Your task to perform on an android device: turn on location history Image 0: 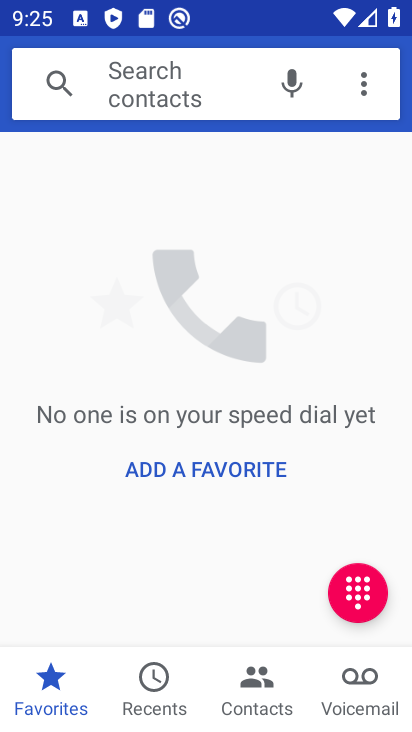
Step 0: press home button
Your task to perform on an android device: turn on location history Image 1: 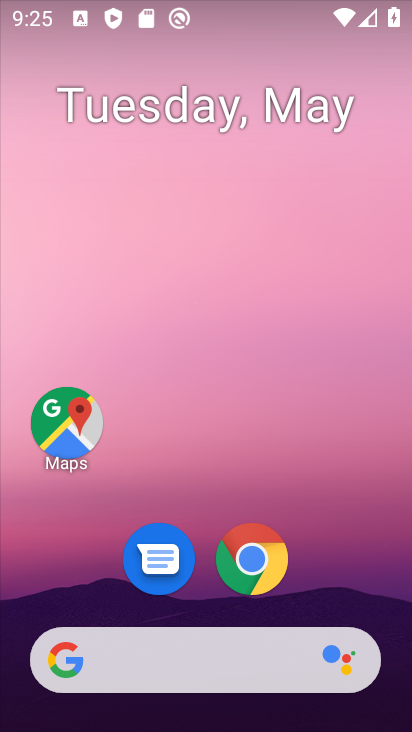
Step 1: drag from (180, 649) to (227, 89)
Your task to perform on an android device: turn on location history Image 2: 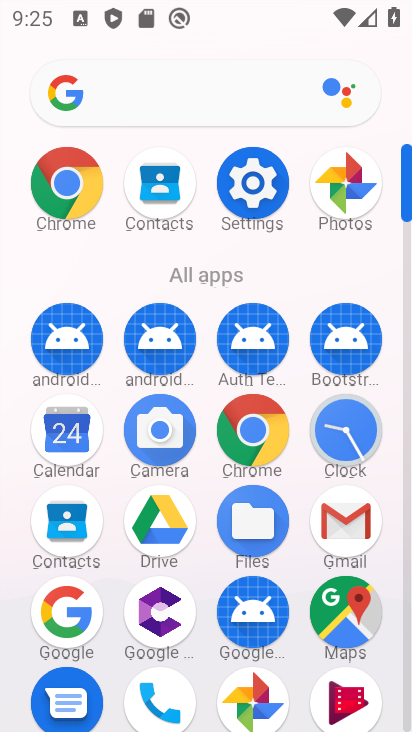
Step 2: click (240, 195)
Your task to perform on an android device: turn on location history Image 3: 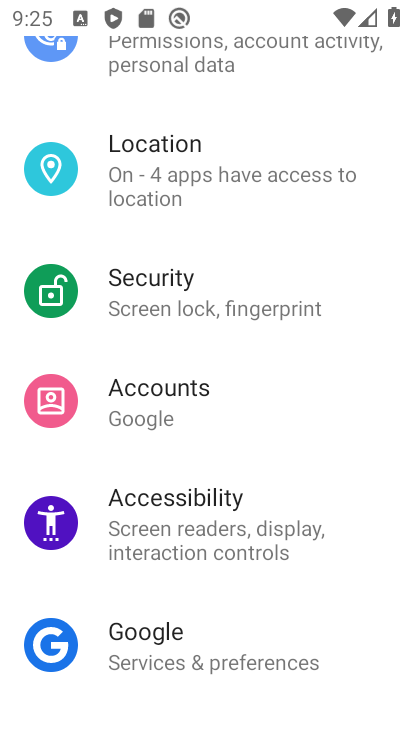
Step 3: click (167, 194)
Your task to perform on an android device: turn on location history Image 4: 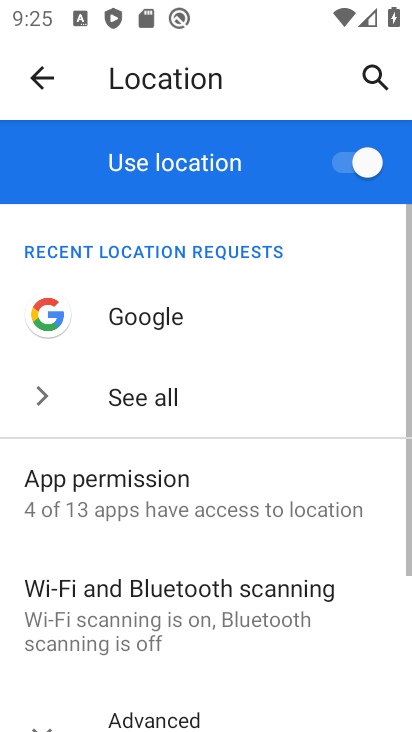
Step 4: drag from (109, 618) to (179, 291)
Your task to perform on an android device: turn on location history Image 5: 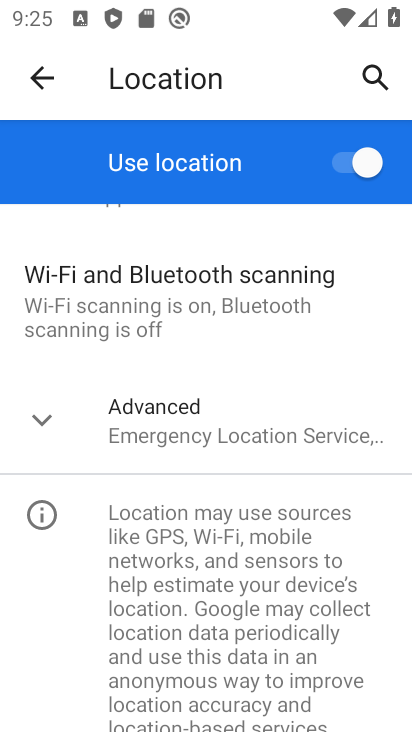
Step 5: click (141, 404)
Your task to perform on an android device: turn on location history Image 6: 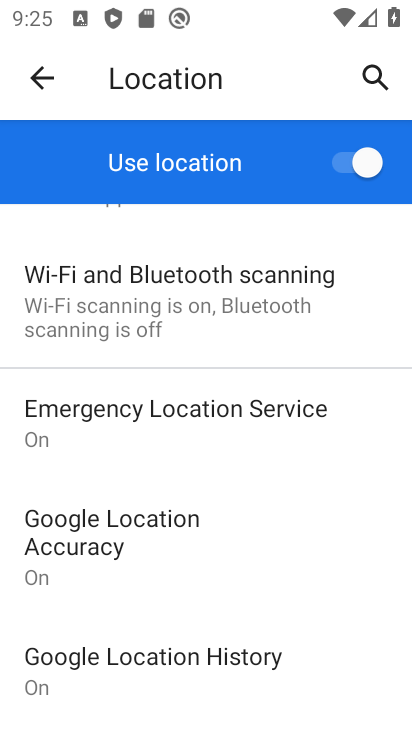
Step 6: click (148, 660)
Your task to perform on an android device: turn on location history Image 7: 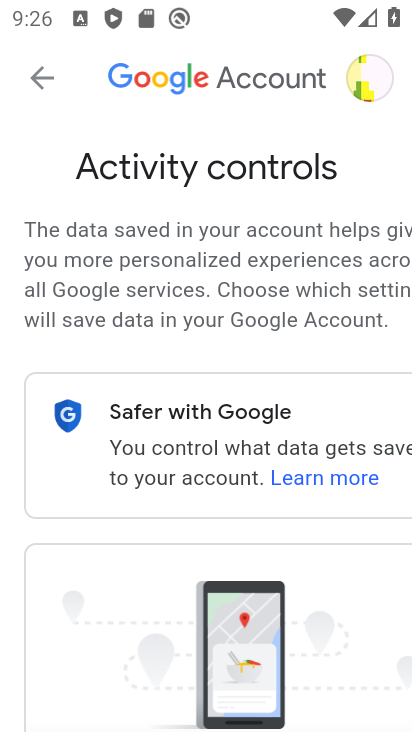
Step 7: task complete